Your task to perform on an android device: Open sound settings Image 0: 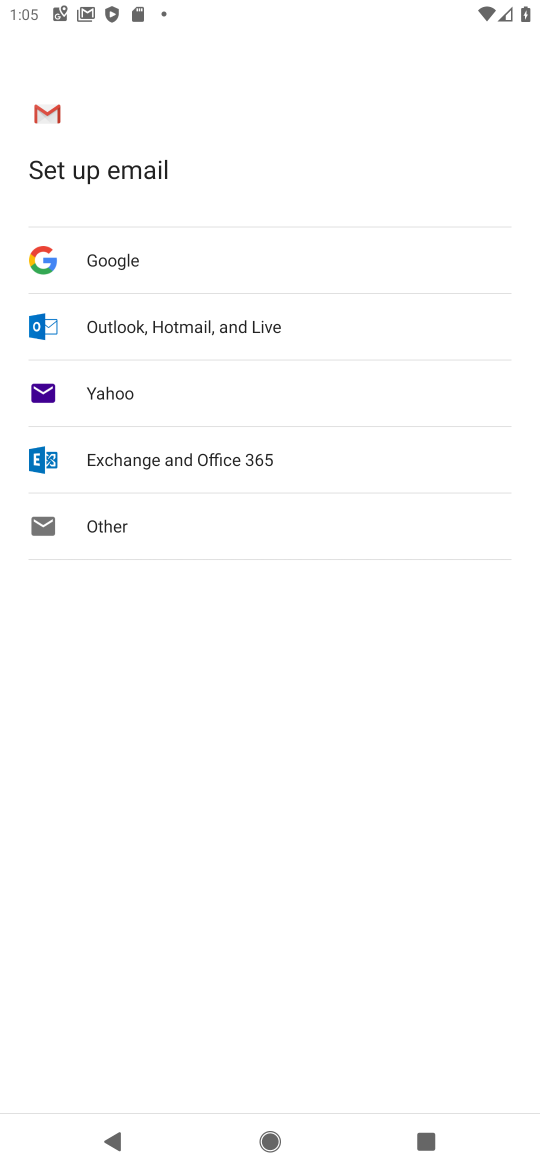
Step 0: press home button
Your task to perform on an android device: Open sound settings Image 1: 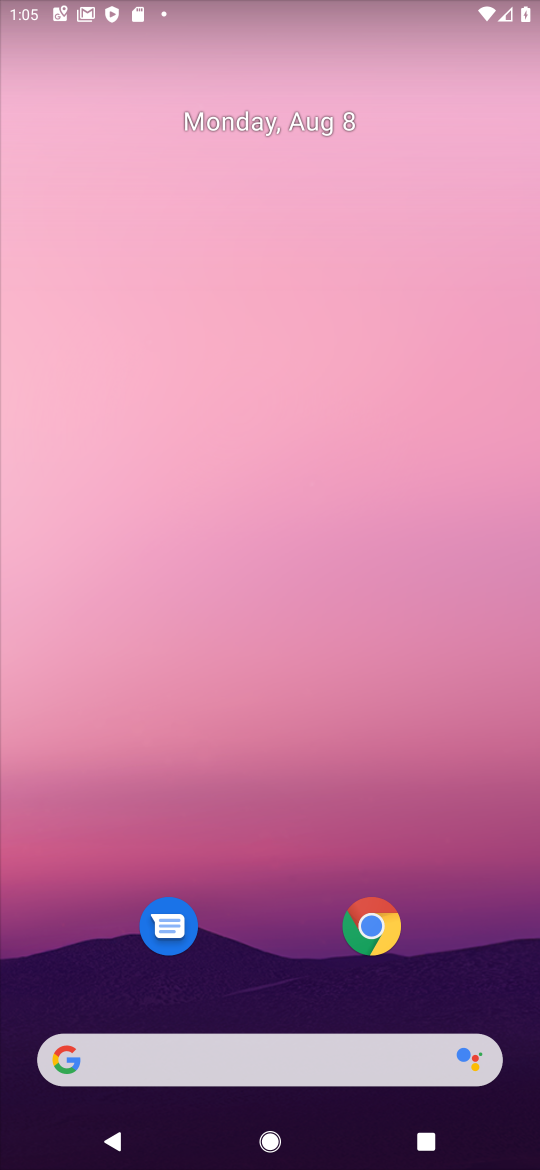
Step 1: drag from (288, 1023) to (300, 169)
Your task to perform on an android device: Open sound settings Image 2: 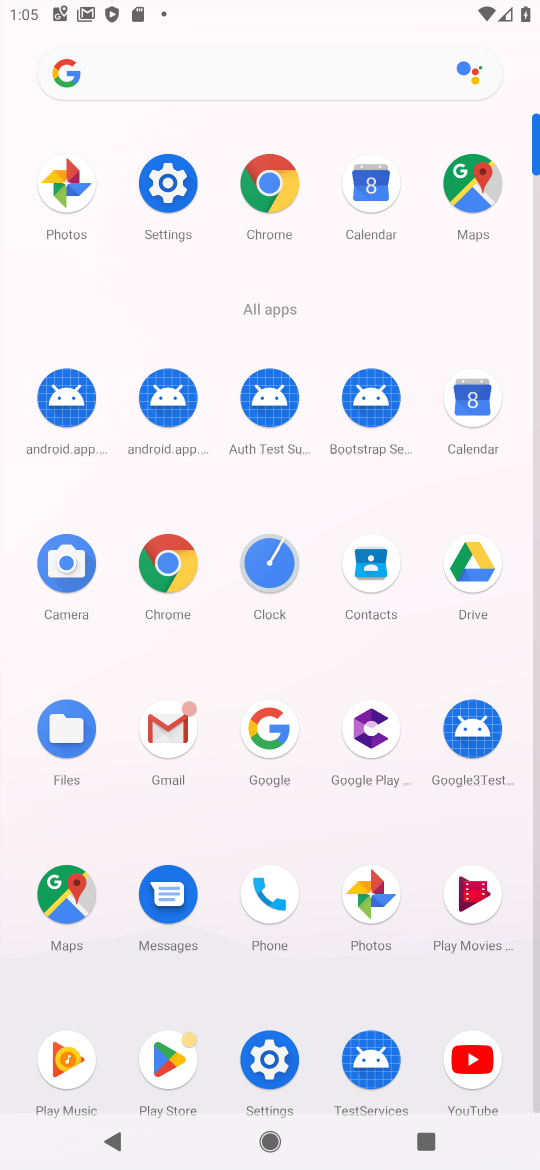
Step 2: click (247, 1059)
Your task to perform on an android device: Open sound settings Image 3: 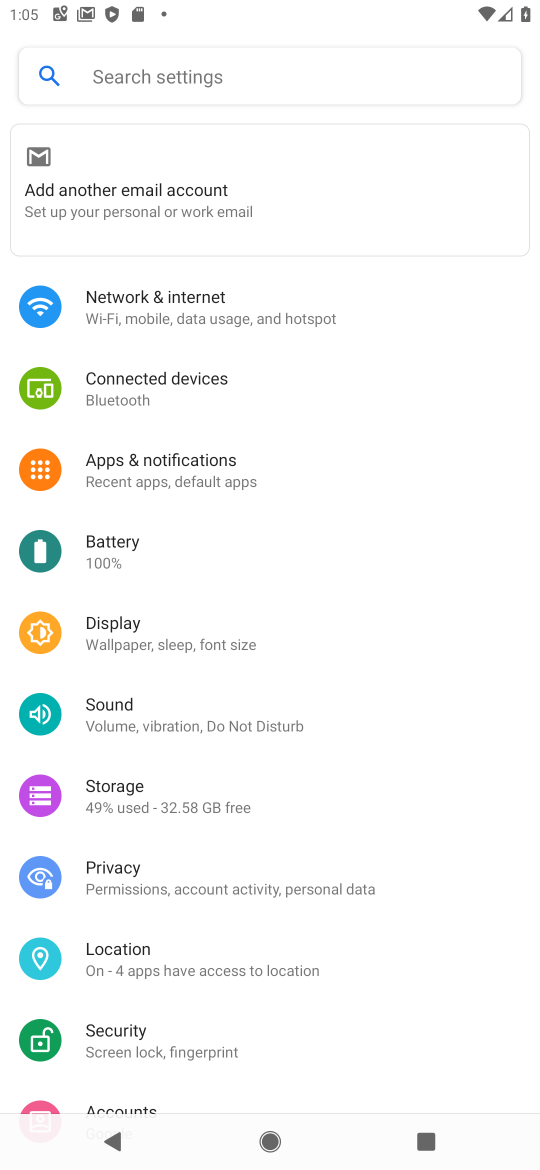
Step 3: click (157, 719)
Your task to perform on an android device: Open sound settings Image 4: 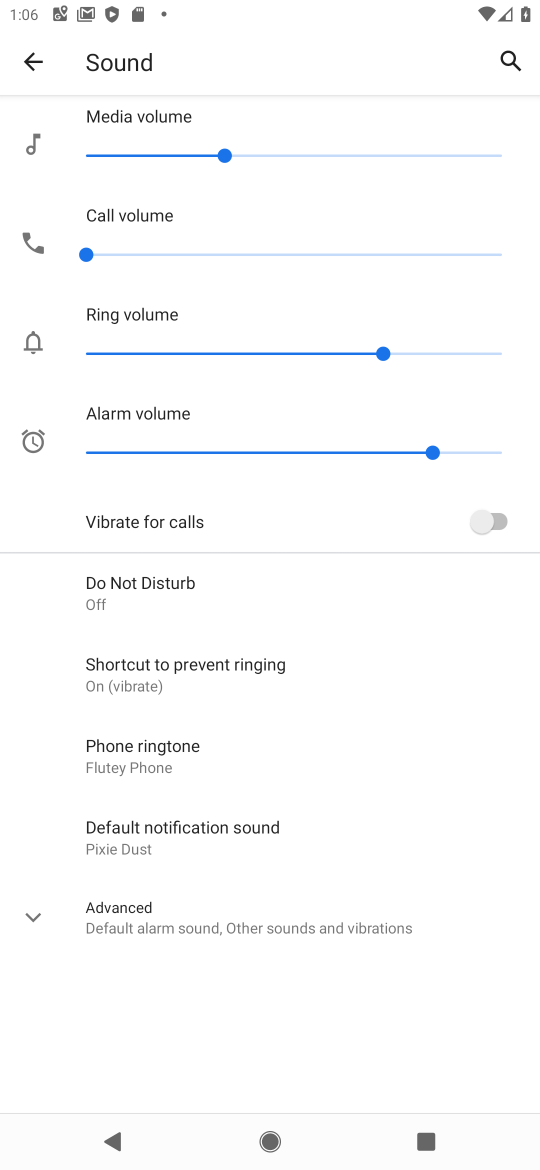
Step 4: task complete